Your task to perform on an android device: See recent photos Image 0: 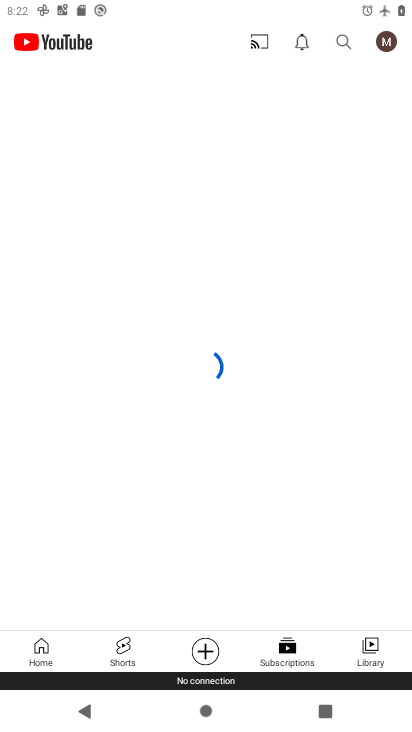
Step 0: press home button
Your task to perform on an android device: See recent photos Image 1: 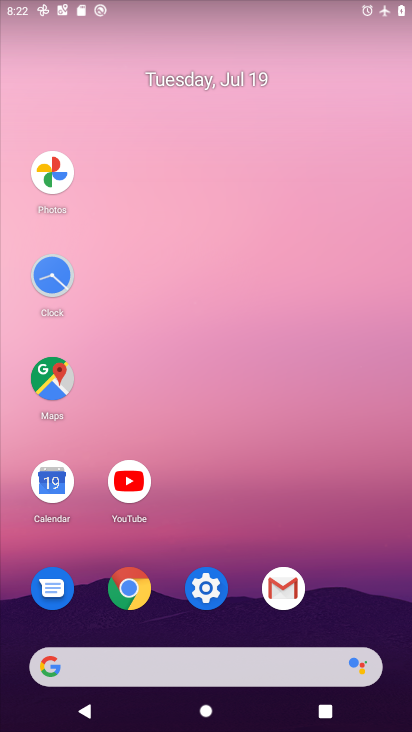
Step 1: click (55, 175)
Your task to perform on an android device: See recent photos Image 2: 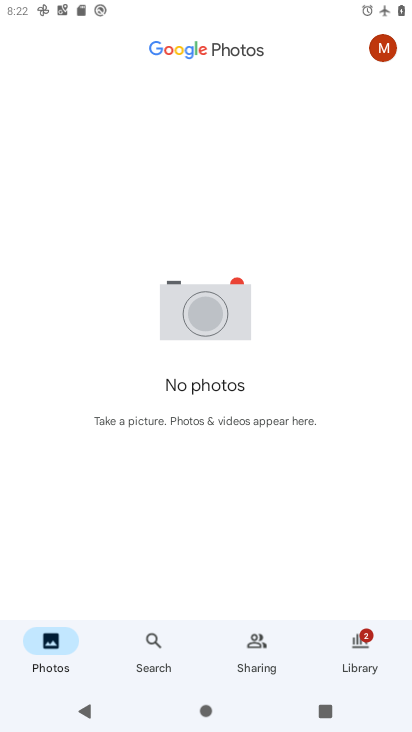
Step 2: task complete